Your task to perform on an android device: turn off javascript in the chrome app Image 0: 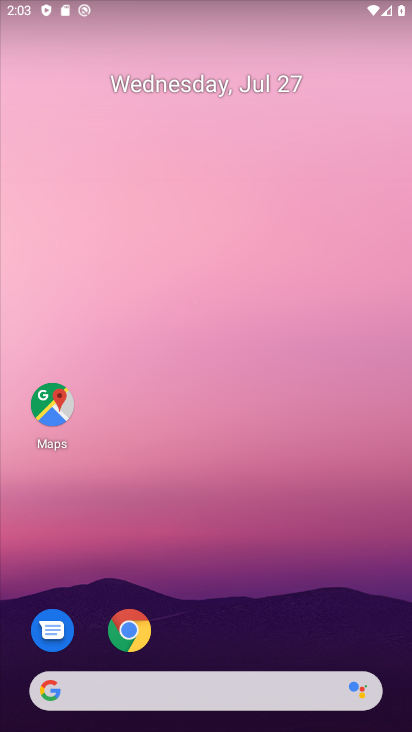
Step 0: click (121, 626)
Your task to perform on an android device: turn off javascript in the chrome app Image 1: 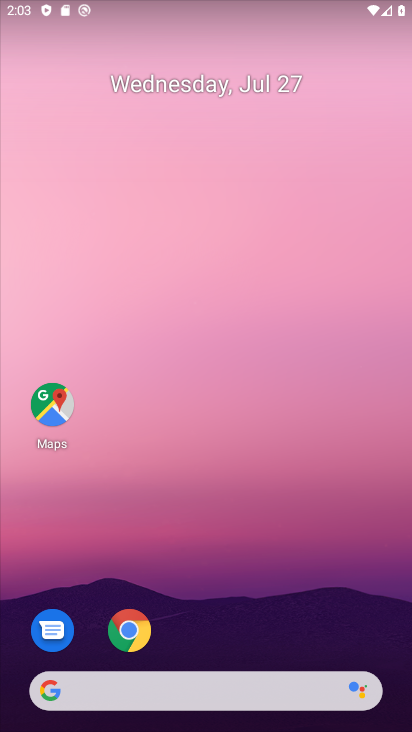
Step 1: click (121, 626)
Your task to perform on an android device: turn off javascript in the chrome app Image 2: 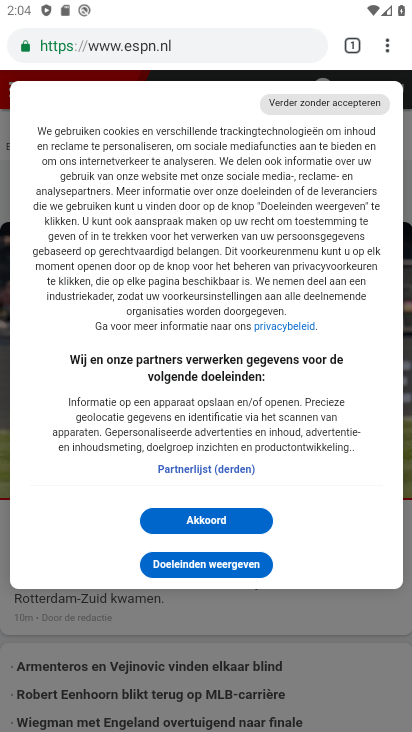
Step 2: click (400, 496)
Your task to perform on an android device: turn off javascript in the chrome app Image 3: 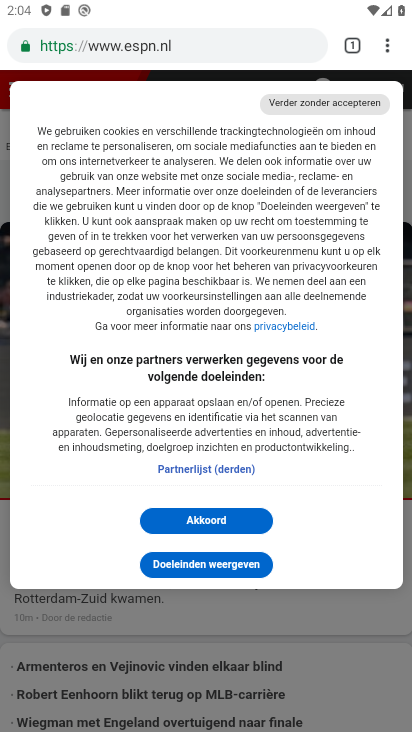
Step 3: click (403, 46)
Your task to perform on an android device: turn off javascript in the chrome app Image 4: 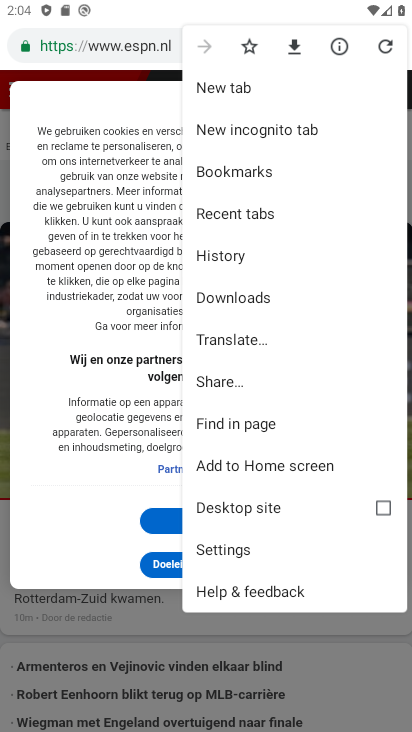
Step 4: click (327, 551)
Your task to perform on an android device: turn off javascript in the chrome app Image 5: 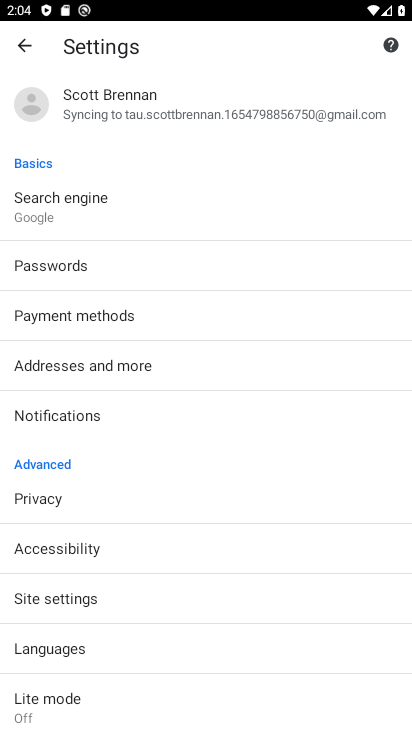
Step 5: click (78, 592)
Your task to perform on an android device: turn off javascript in the chrome app Image 6: 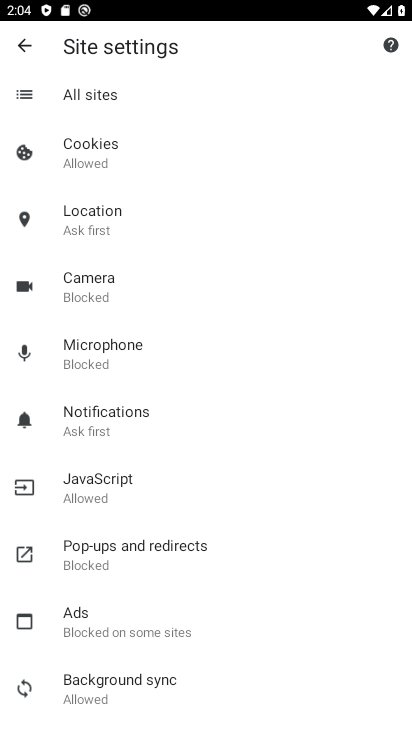
Step 6: click (117, 492)
Your task to perform on an android device: turn off javascript in the chrome app Image 7: 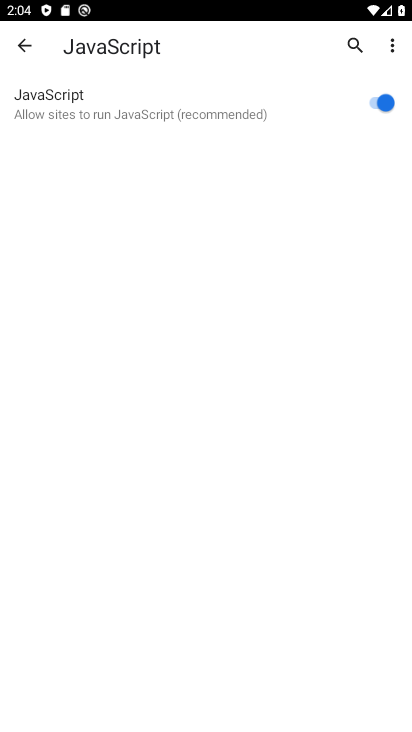
Step 7: click (377, 101)
Your task to perform on an android device: turn off javascript in the chrome app Image 8: 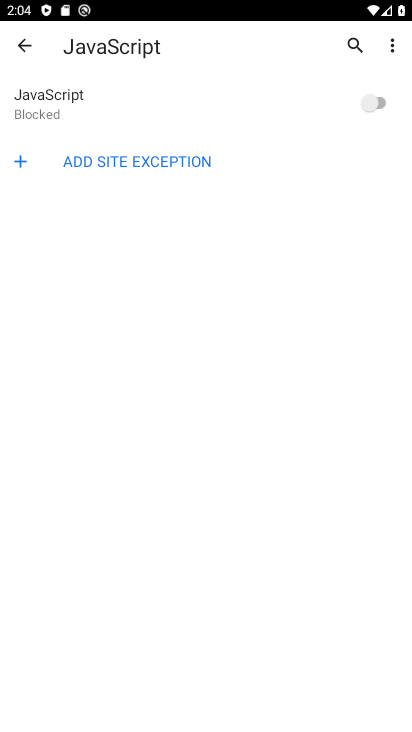
Step 8: task complete